Your task to perform on an android device: Open calendar and show me the fourth week of next month Image 0: 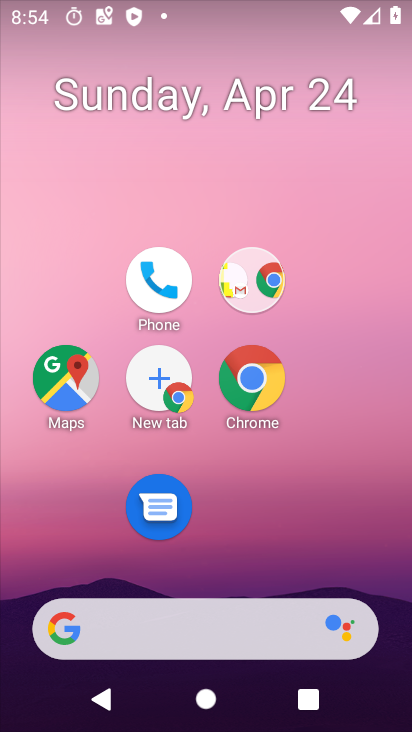
Step 0: drag from (233, 511) to (152, 2)
Your task to perform on an android device: Open calendar and show me the fourth week of next month Image 1: 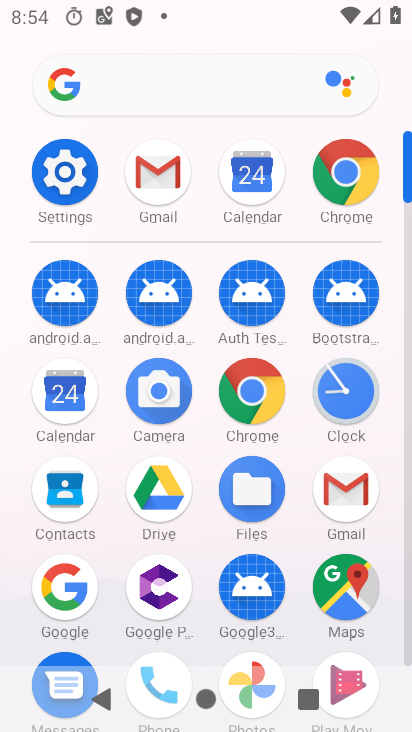
Step 1: click (62, 392)
Your task to perform on an android device: Open calendar and show me the fourth week of next month Image 2: 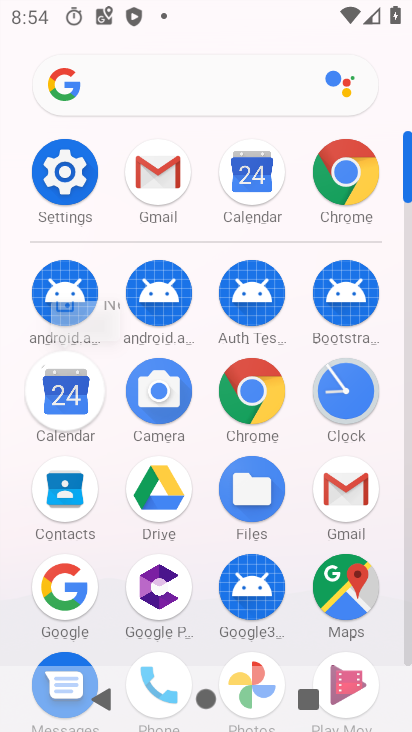
Step 2: click (58, 392)
Your task to perform on an android device: Open calendar and show me the fourth week of next month Image 3: 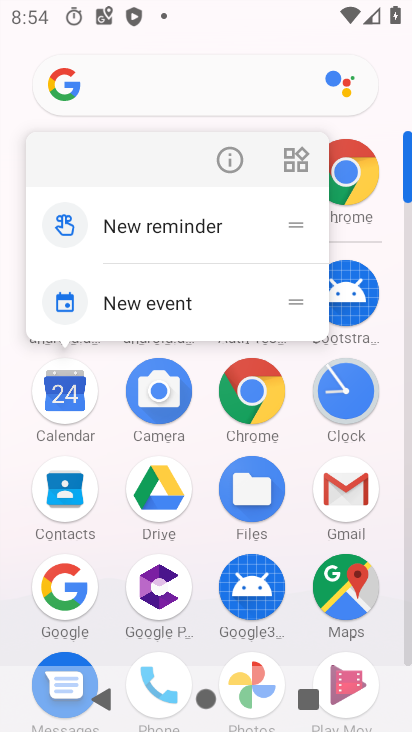
Step 3: click (57, 381)
Your task to perform on an android device: Open calendar and show me the fourth week of next month Image 4: 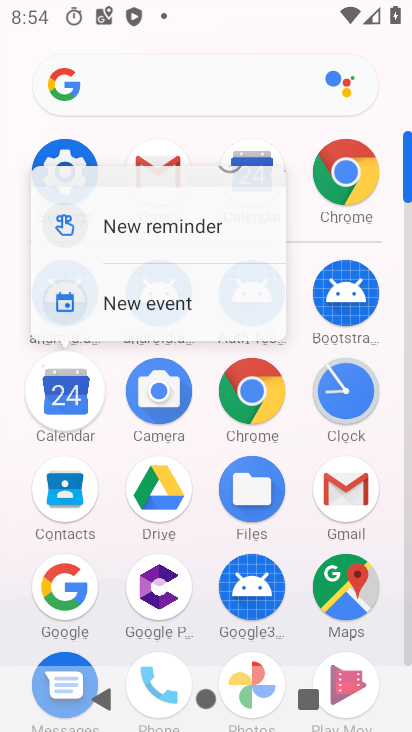
Step 4: click (59, 381)
Your task to perform on an android device: Open calendar and show me the fourth week of next month Image 5: 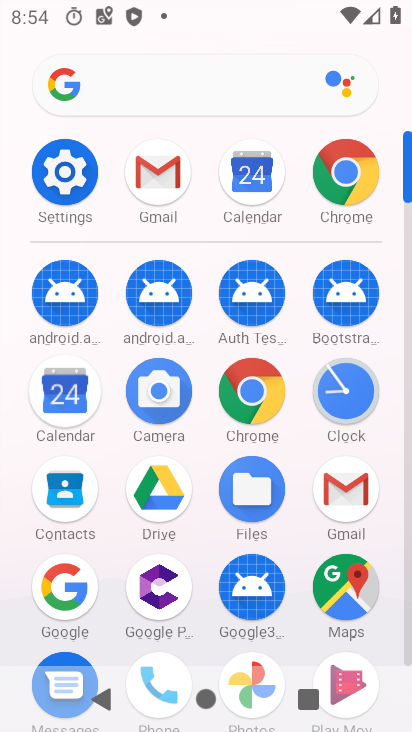
Step 5: click (59, 381)
Your task to perform on an android device: Open calendar and show me the fourth week of next month Image 6: 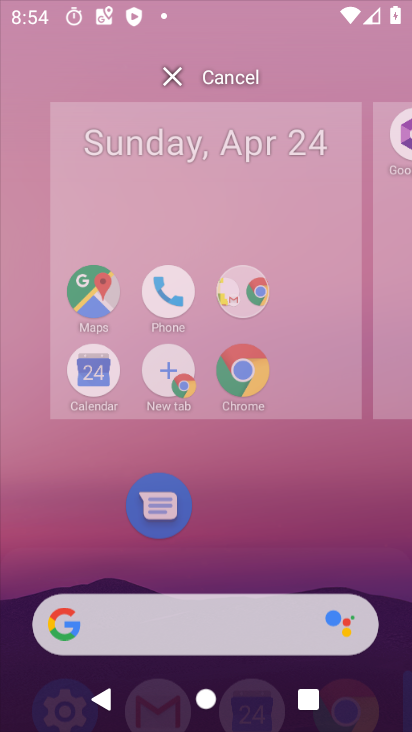
Step 6: click (71, 402)
Your task to perform on an android device: Open calendar and show me the fourth week of next month Image 7: 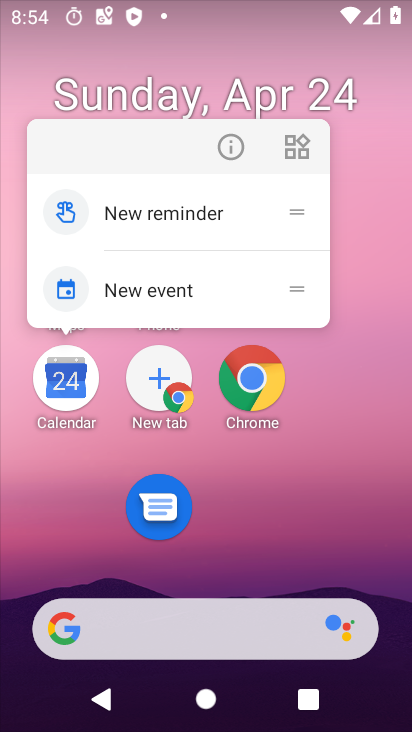
Step 7: drag from (250, 458) to (162, 7)
Your task to perform on an android device: Open calendar and show me the fourth week of next month Image 8: 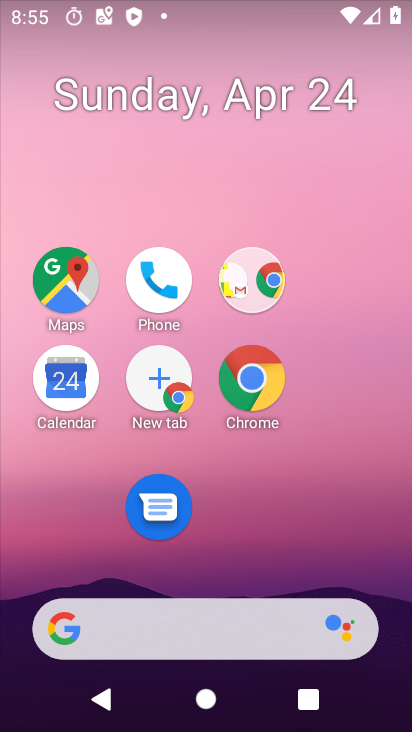
Step 8: click (52, 387)
Your task to perform on an android device: Open calendar and show me the fourth week of next month Image 9: 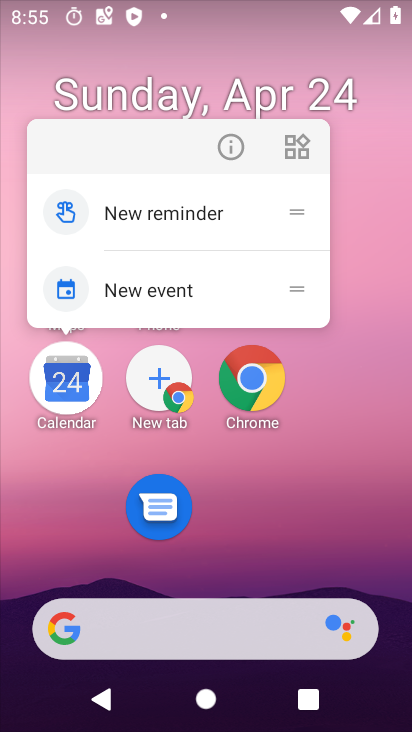
Step 9: click (53, 386)
Your task to perform on an android device: Open calendar and show me the fourth week of next month Image 10: 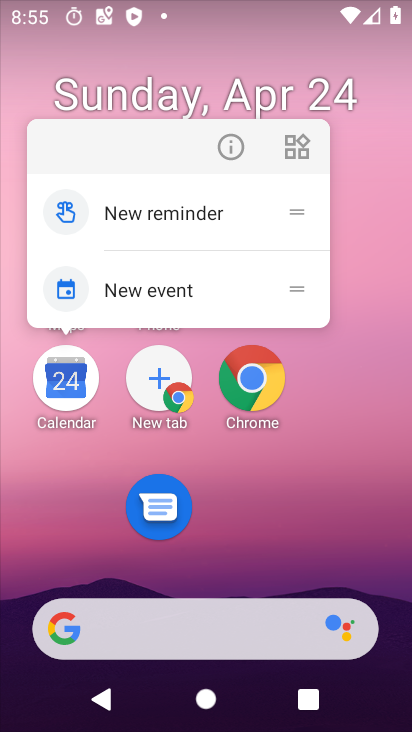
Step 10: click (53, 386)
Your task to perform on an android device: Open calendar and show me the fourth week of next month Image 11: 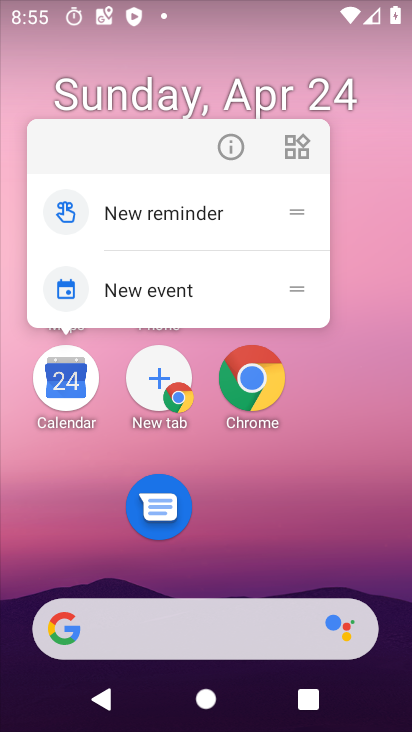
Step 11: click (54, 387)
Your task to perform on an android device: Open calendar and show me the fourth week of next month Image 12: 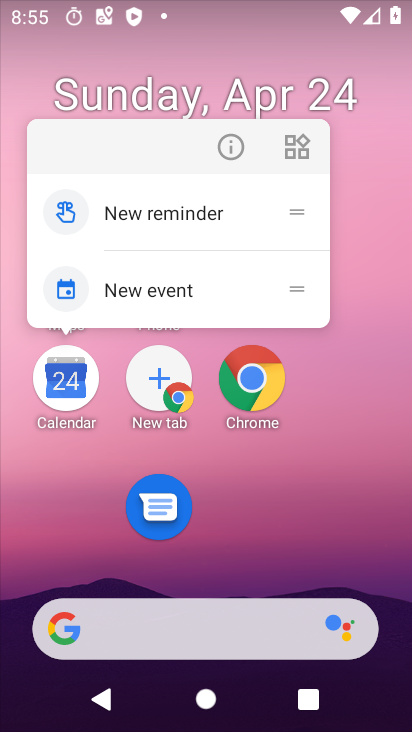
Step 12: click (69, 388)
Your task to perform on an android device: Open calendar and show me the fourth week of next month Image 13: 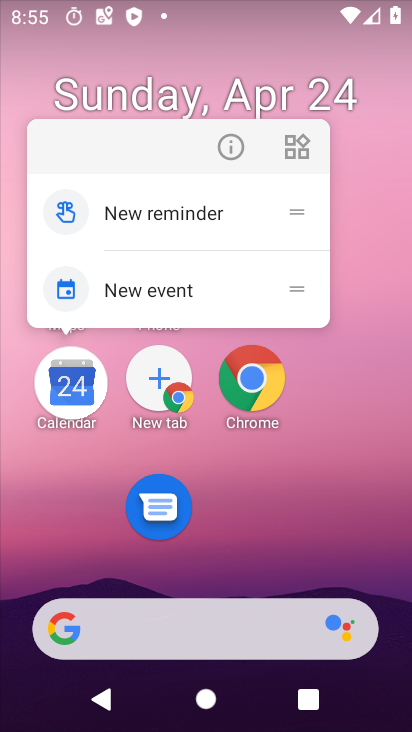
Step 13: drag from (74, 393) to (89, 460)
Your task to perform on an android device: Open calendar and show me the fourth week of next month Image 14: 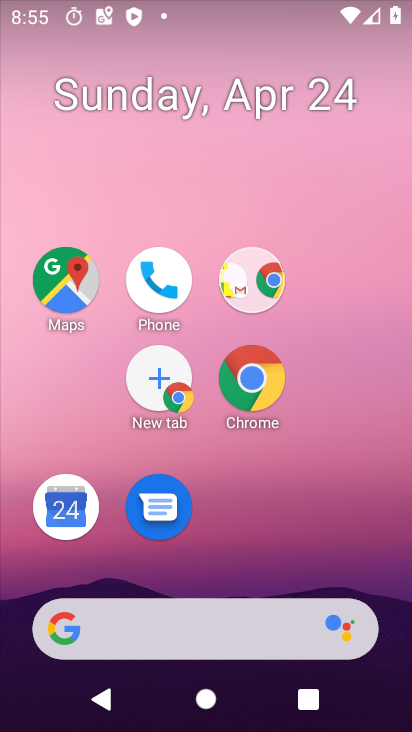
Step 14: click (64, 498)
Your task to perform on an android device: Open calendar and show me the fourth week of next month Image 15: 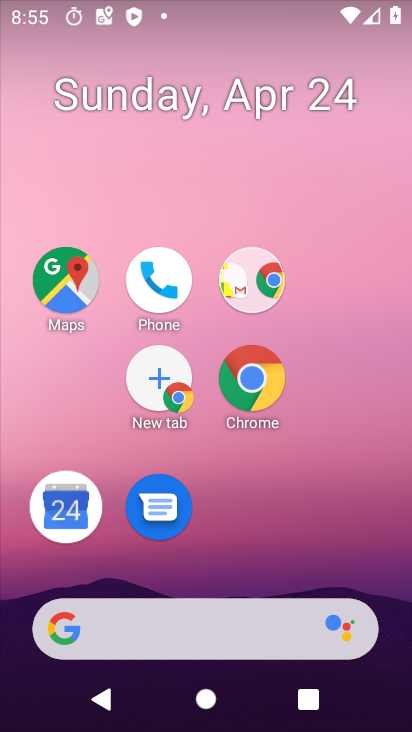
Step 15: click (64, 498)
Your task to perform on an android device: Open calendar and show me the fourth week of next month Image 16: 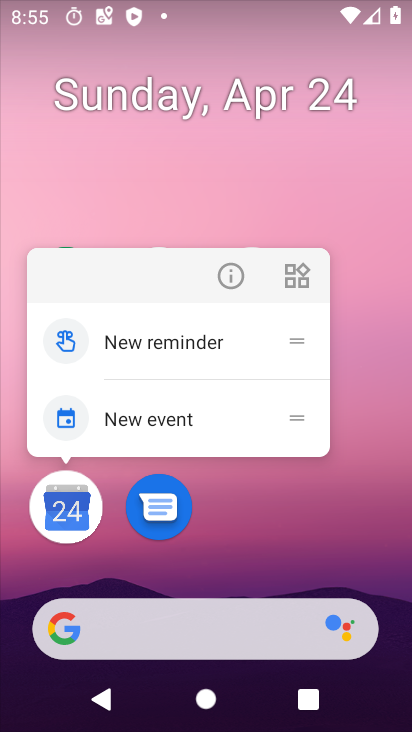
Step 16: click (63, 498)
Your task to perform on an android device: Open calendar and show me the fourth week of next month Image 17: 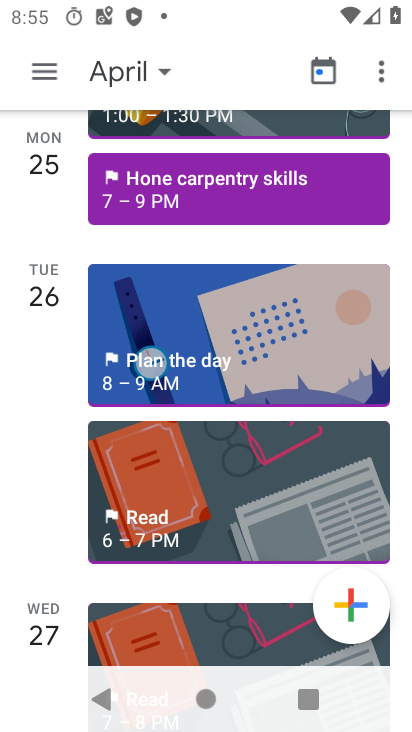
Step 17: click (165, 73)
Your task to perform on an android device: Open calendar and show me the fourth week of next month Image 18: 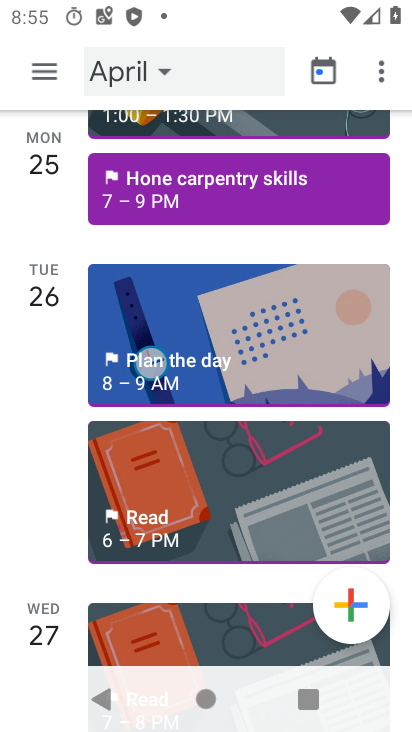
Step 18: click (165, 73)
Your task to perform on an android device: Open calendar and show me the fourth week of next month Image 19: 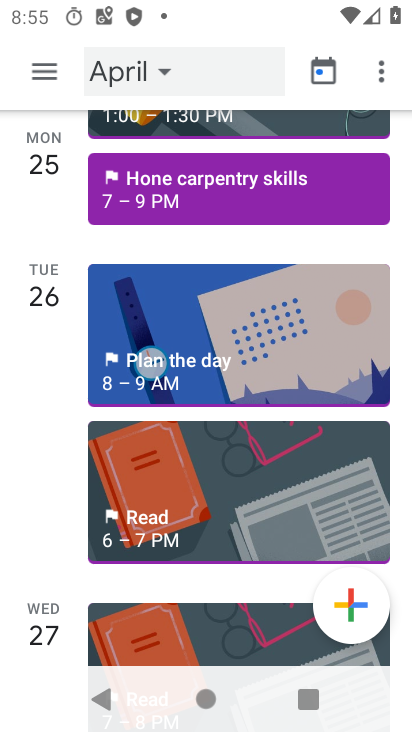
Step 19: click (177, 87)
Your task to perform on an android device: Open calendar and show me the fourth week of next month Image 20: 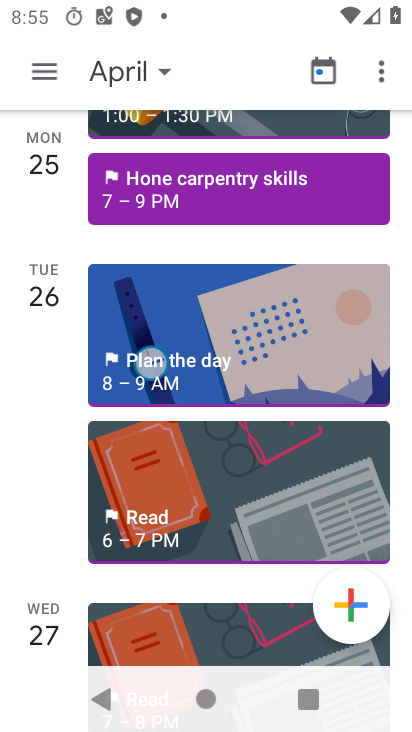
Step 20: click (162, 63)
Your task to perform on an android device: Open calendar and show me the fourth week of next month Image 21: 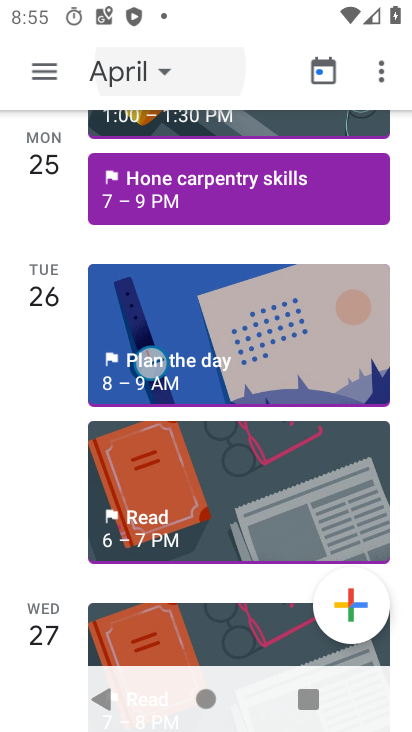
Step 21: click (170, 70)
Your task to perform on an android device: Open calendar and show me the fourth week of next month Image 22: 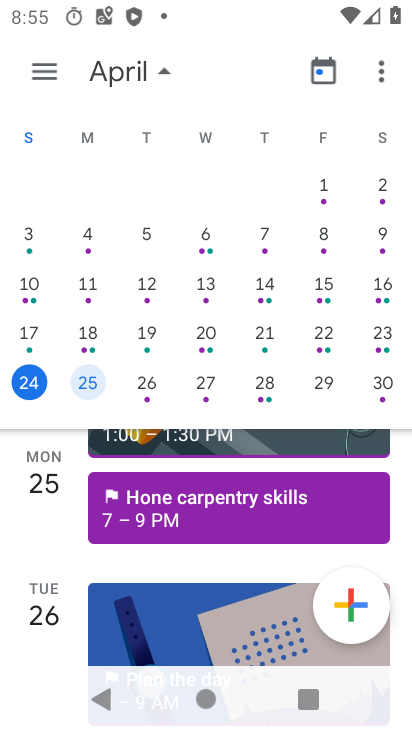
Step 22: drag from (265, 347) to (1, 328)
Your task to perform on an android device: Open calendar and show me the fourth week of next month Image 23: 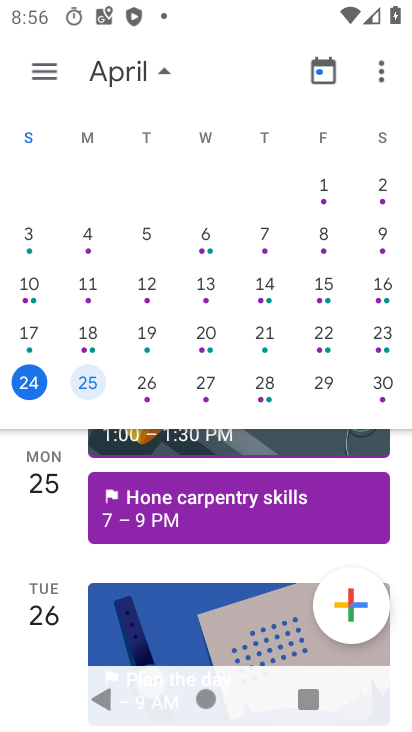
Step 23: drag from (240, 323) to (15, 323)
Your task to perform on an android device: Open calendar and show me the fourth week of next month Image 24: 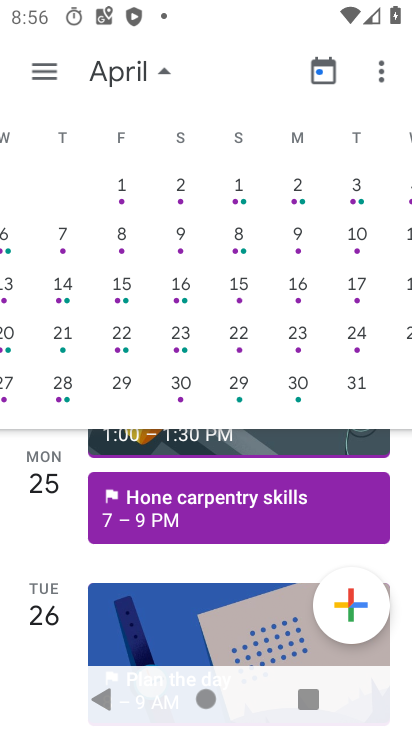
Step 24: drag from (187, 380) to (129, 356)
Your task to perform on an android device: Open calendar and show me the fourth week of next month Image 25: 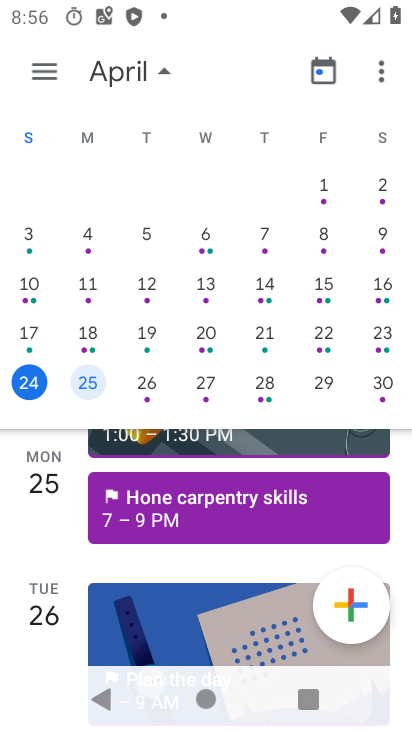
Step 25: drag from (186, 363) to (159, 340)
Your task to perform on an android device: Open calendar and show me the fourth week of next month Image 26: 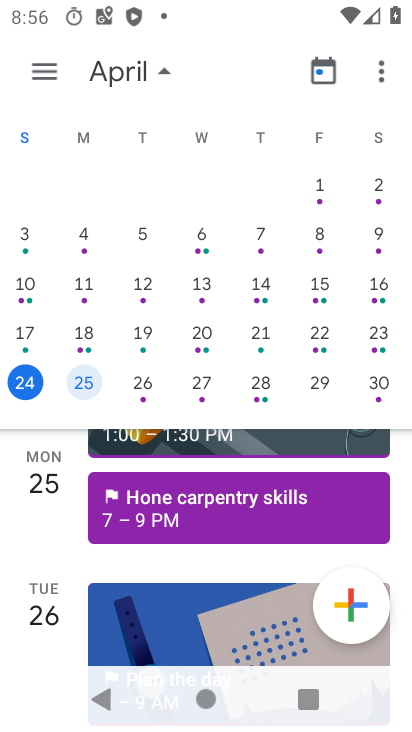
Step 26: drag from (250, 334) to (1, 339)
Your task to perform on an android device: Open calendar and show me the fourth week of next month Image 27: 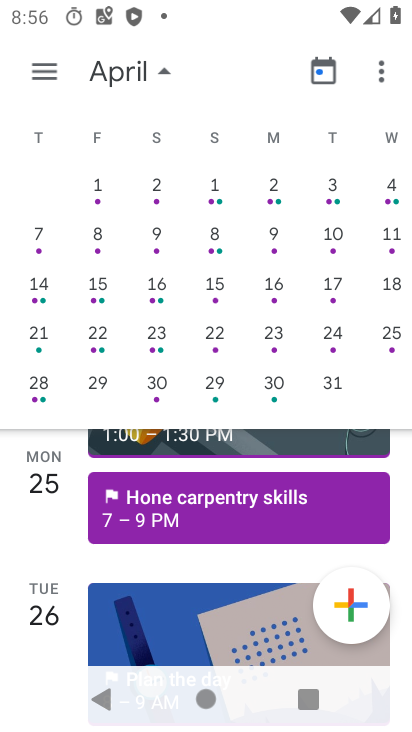
Step 27: drag from (245, 337) to (22, 314)
Your task to perform on an android device: Open calendar and show me the fourth week of next month Image 28: 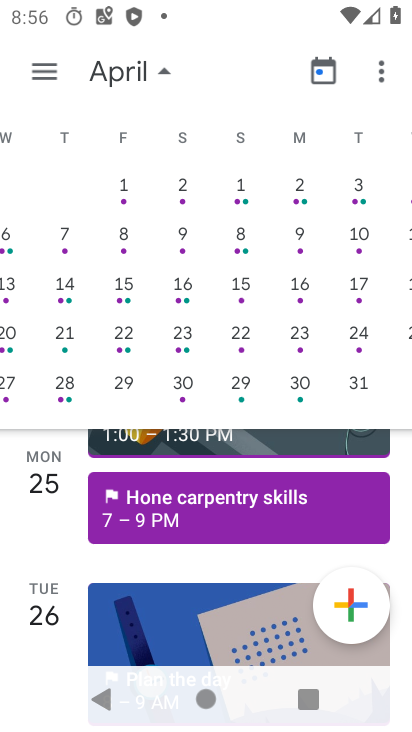
Step 28: drag from (139, 343) to (9, 299)
Your task to perform on an android device: Open calendar and show me the fourth week of next month Image 29: 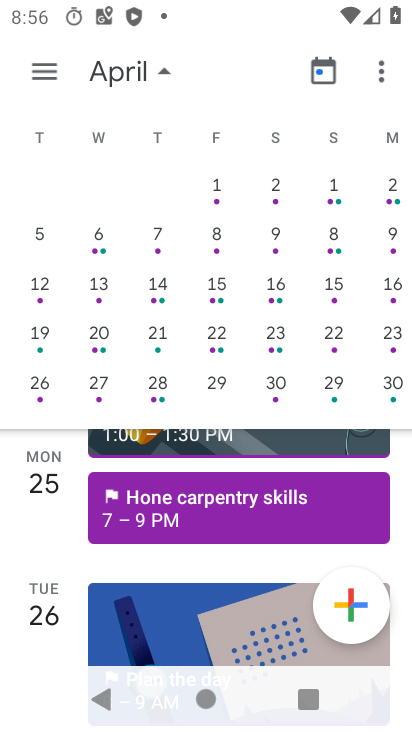
Step 29: drag from (274, 333) to (4, 320)
Your task to perform on an android device: Open calendar and show me the fourth week of next month Image 30: 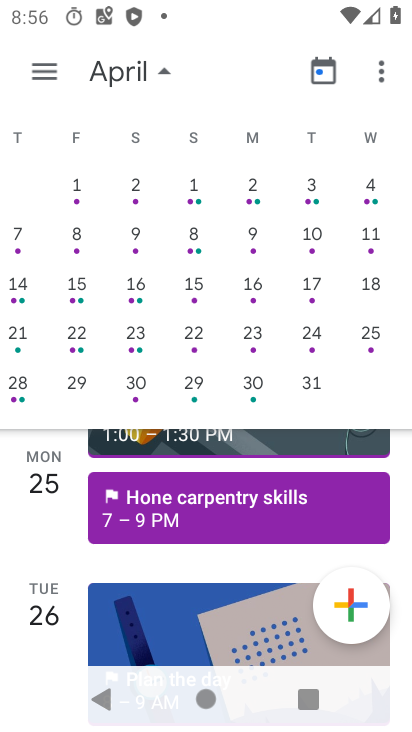
Step 30: drag from (254, 340) to (136, 360)
Your task to perform on an android device: Open calendar and show me the fourth week of next month Image 31: 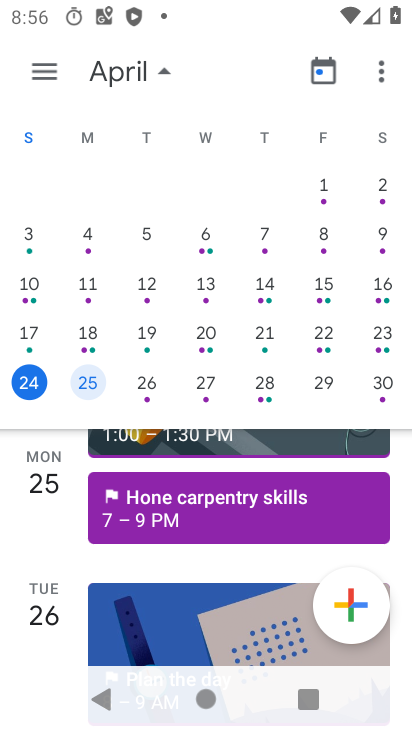
Step 31: drag from (70, 361) to (33, 328)
Your task to perform on an android device: Open calendar and show me the fourth week of next month Image 32: 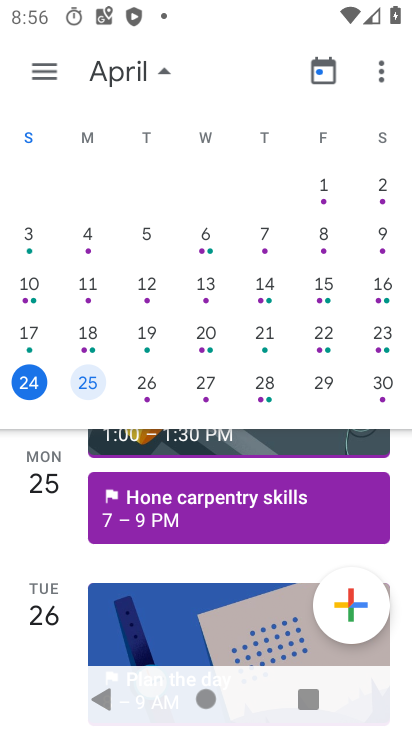
Step 32: drag from (130, 327) to (70, 274)
Your task to perform on an android device: Open calendar and show me the fourth week of next month Image 33: 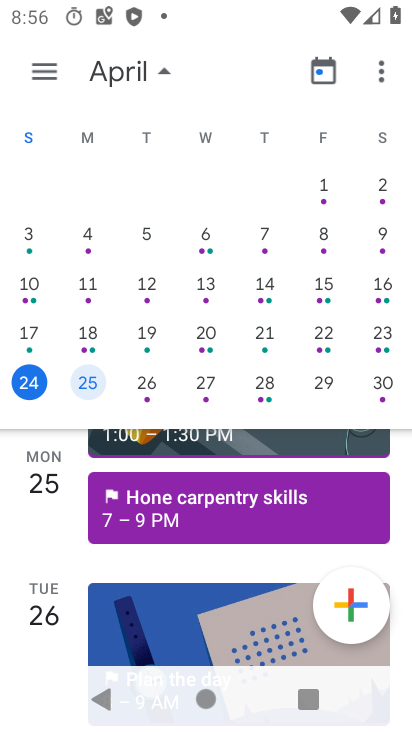
Step 33: drag from (209, 325) to (58, 304)
Your task to perform on an android device: Open calendar and show me the fourth week of next month Image 34: 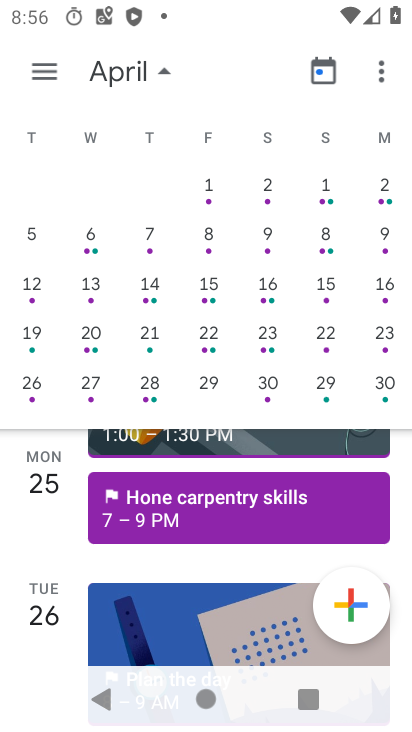
Step 34: click (178, 368)
Your task to perform on an android device: Open calendar and show me the fourth week of next month Image 35: 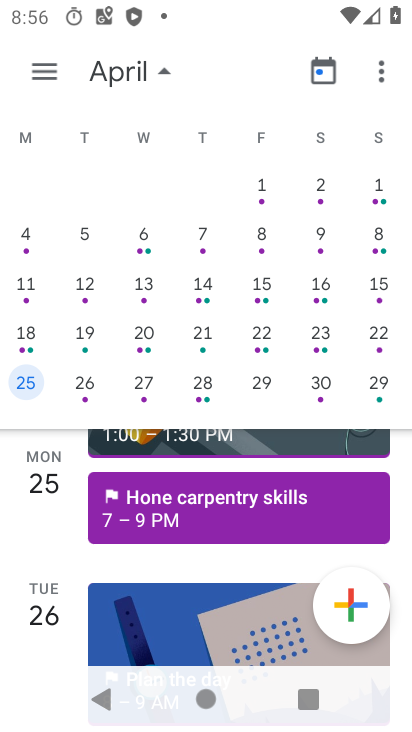
Step 35: drag from (65, 348) to (7, 297)
Your task to perform on an android device: Open calendar and show me the fourth week of next month Image 36: 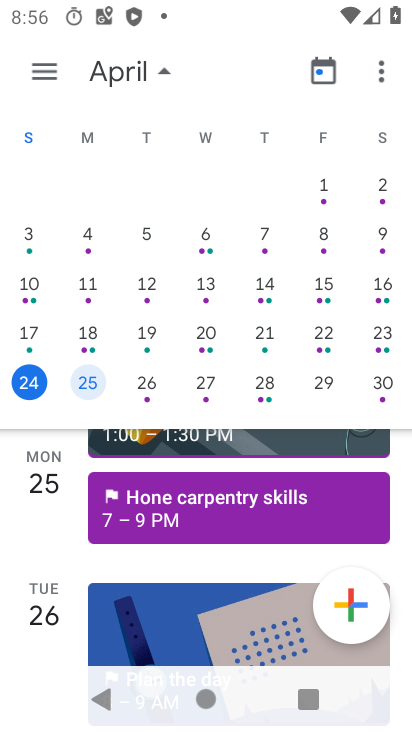
Step 36: drag from (17, 371) to (57, 315)
Your task to perform on an android device: Open calendar and show me the fourth week of next month Image 37: 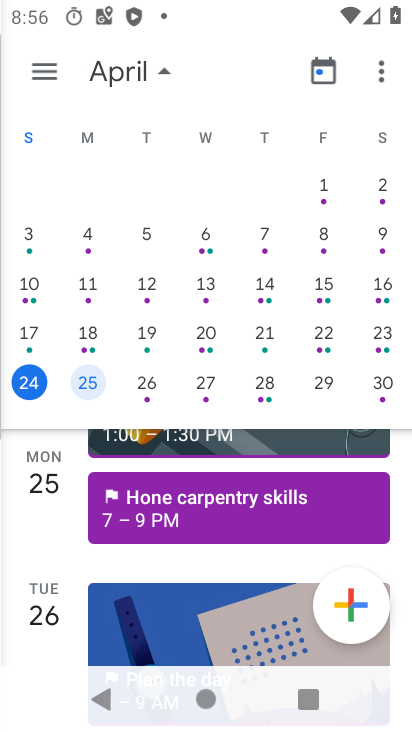
Step 37: drag from (173, 334) to (6, 272)
Your task to perform on an android device: Open calendar and show me the fourth week of next month Image 38: 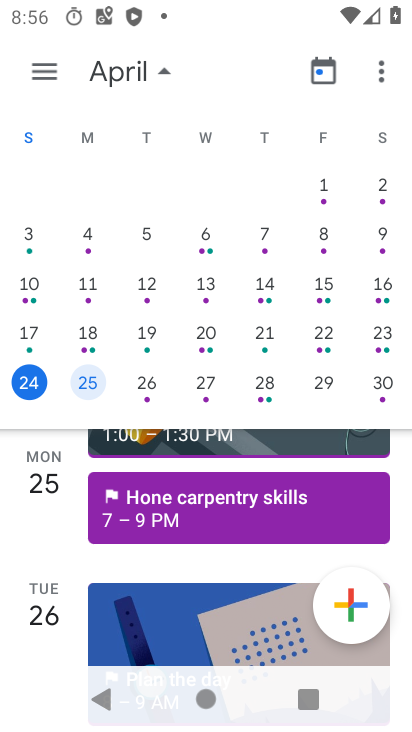
Step 38: drag from (235, 331) to (11, 313)
Your task to perform on an android device: Open calendar and show me the fourth week of next month Image 39: 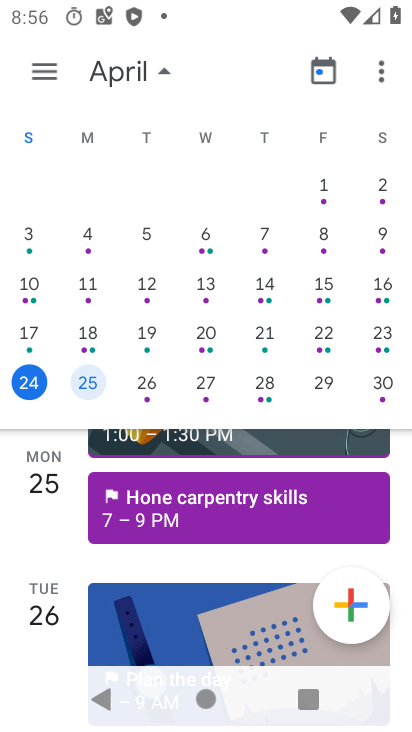
Step 39: drag from (96, 337) to (11, 289)
Your task to perform on an android device: Open calendar and show me the fourth week of next month Image 40: 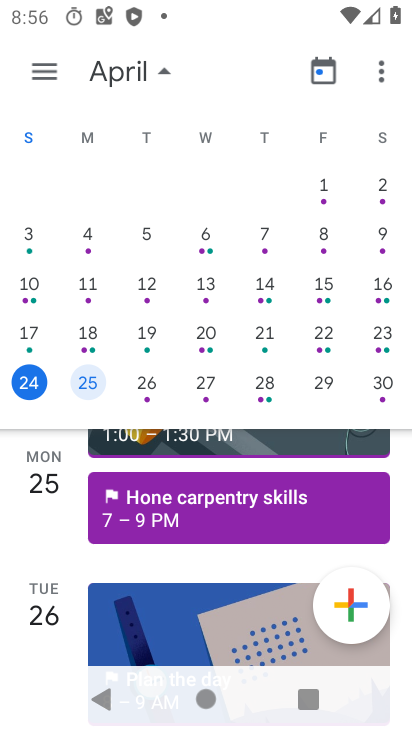
Step 40: click (38, 358)
Your task to perform on an android device: Open calendar and show me the fourth week of next month Image 41: 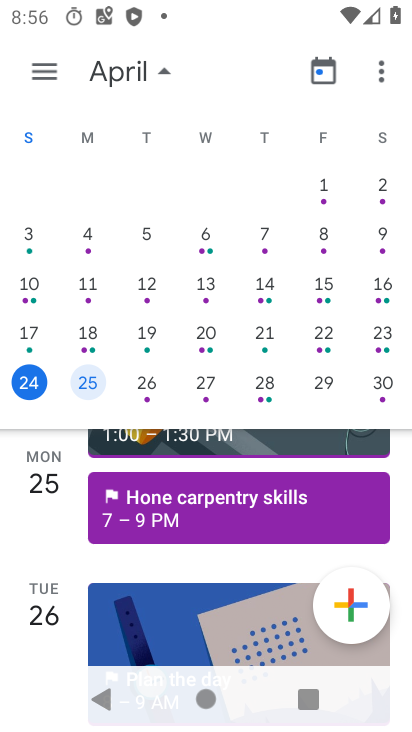
Step 41: drag from (71, 345) to (57, 229)
Your task to perform on an android device: Open calendar and show me the fourth week of next month Image 42: 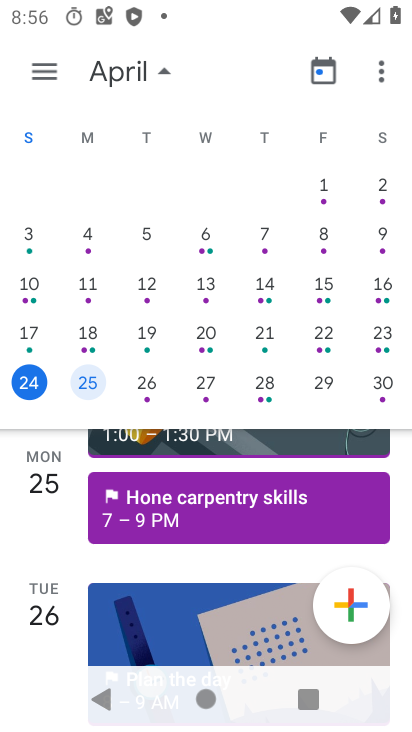
Step 42: drag from (225, 327) to (0, 360)
Your task to perform on an android device: Open calendar and show me the fourth week of next month Image 43: 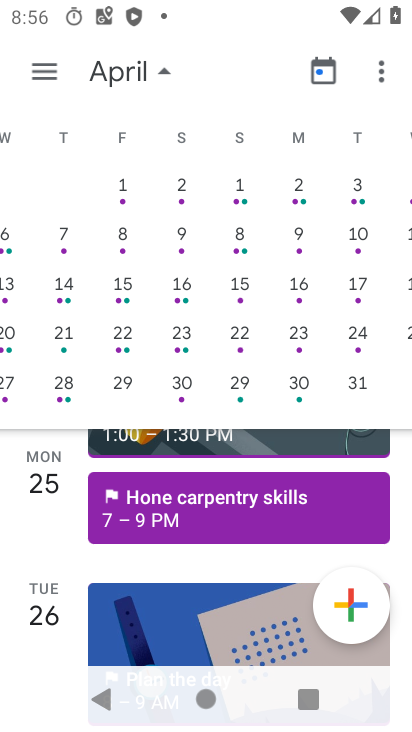
Step 43: drag from (173, 337) to (44, 345)
Your task to perform on an android device: Open calendar and show me the fourth week of next month Image 44: 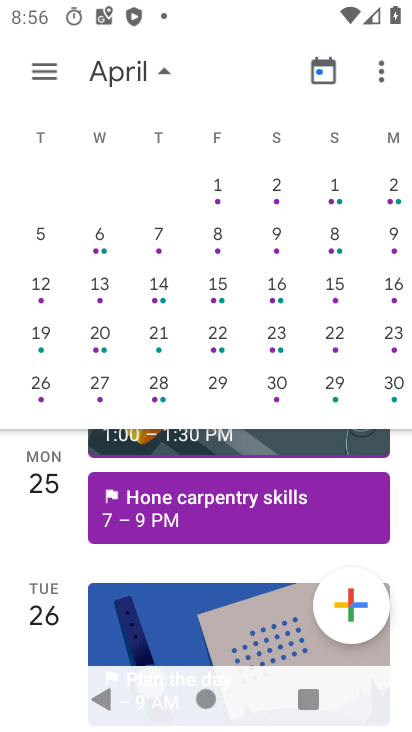
Step 44: click (67, 363)
Your task to perform on an android device: Open calendar and show me the fourth week of next month Image 45: 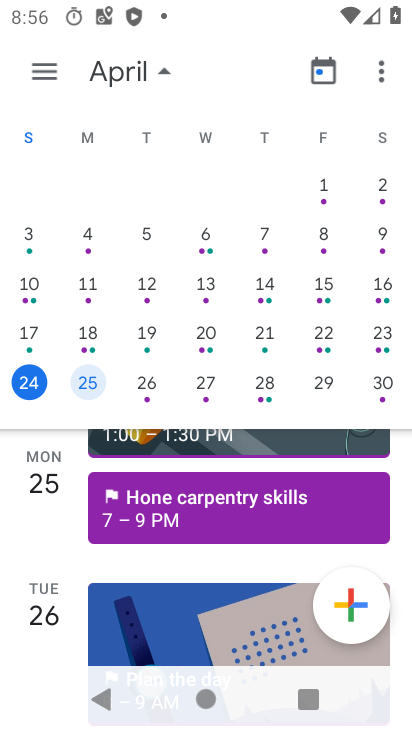
Step 45: task complete